Your task to perform on an android device: turn on notifications settings in the gmail app Image 0: 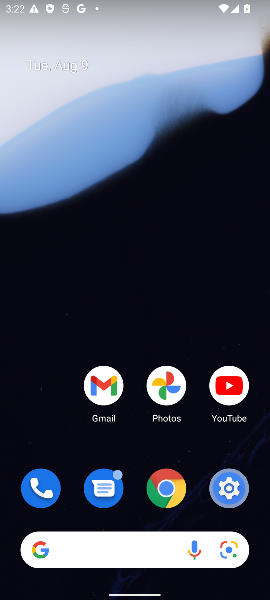
Step 0: click (113, 374)
Your task to perform on an android device: turn on notifications settings in the gmail app Image 1: 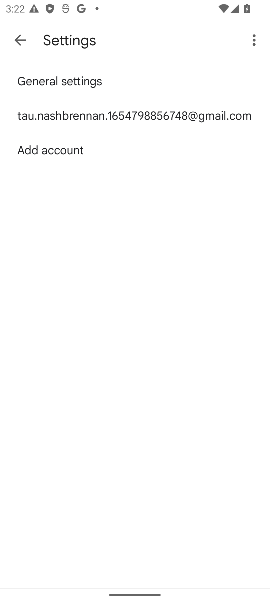
Step 1: click (119, 115)
Your task to perform on an android device: turn on notifications settings in the gmail app Image 2: 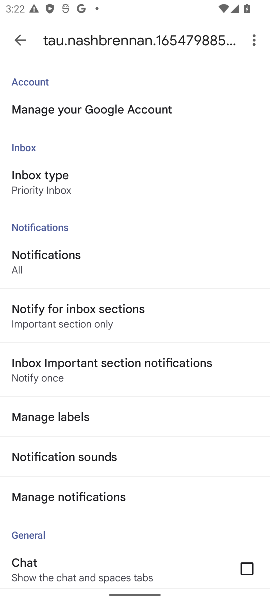
Step 2: click (108, 497)
Your task to perform on an android device: turn on notifications settings in the gmail app Image 3: 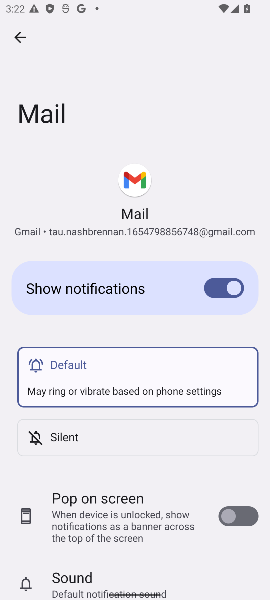
Step 3: drag from (174, 582) to (139, 280)
Your task to perform on an android device: turn on notifications settings in the gmail app Image 4: 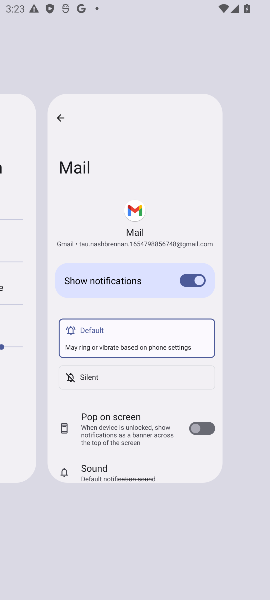
Step 4: click (139, 280)
Your task to perform on an android device: turn on notifications settings in the gmail app Image 5: 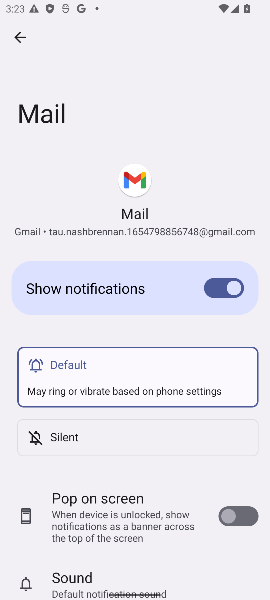
Step 5: drag from (152, 477) to (157, 153)
Your task to perform on an android device: turn on notifications settings in the gmail app Image 6: 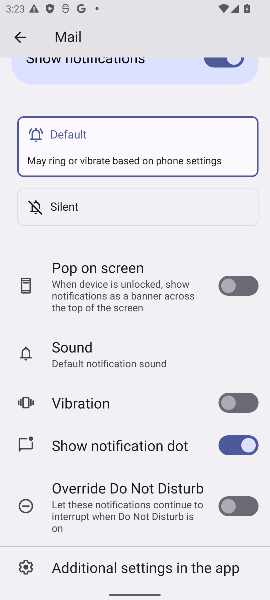
Step 6: click (239, 283)
Your task to perform on an android device: turn on notifications settings in the gmail app Image 7: 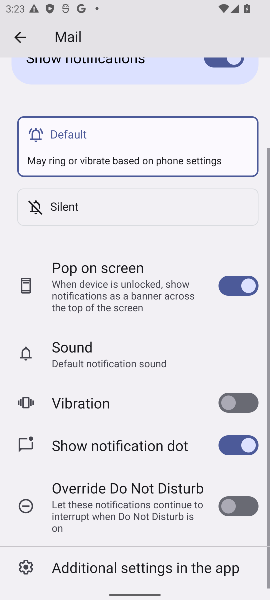
Step 7: click (240, 404)
Your task to perform on an android device: turn on notifications settings in the gmail app Image 8: 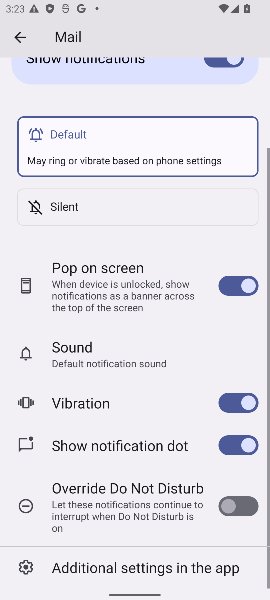
Step 8: click (240, 514)
Your task to perform on an android device: turn on notifications settings in the gmail app Image 9: 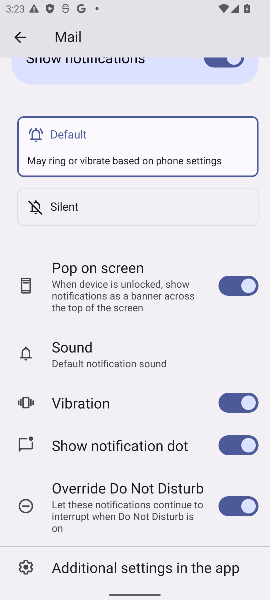
Step 9: task complete